Your task to perform on an android device: Open Amazon Image 0: 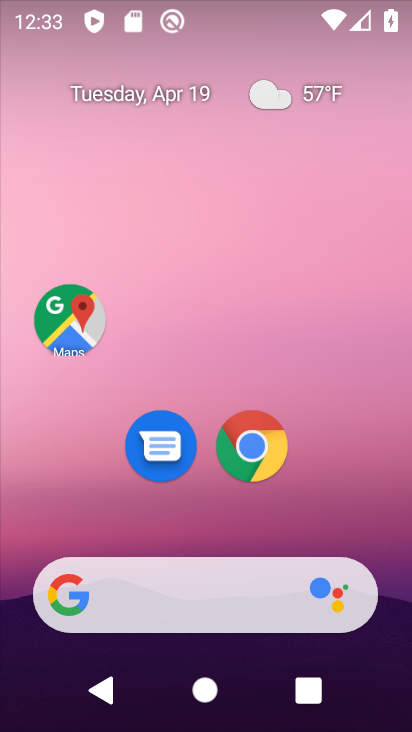
Step 0: click (261, 443)
Your task to perform on an android device: Open Amazon Image 1: 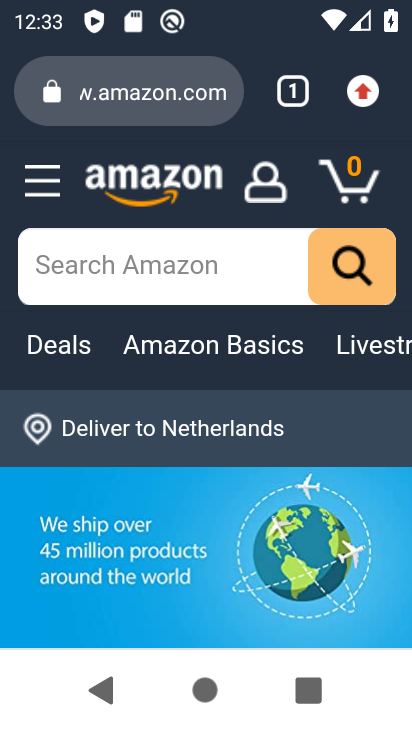
Step 1: task complete